Your task to perform on an android device: Open Youtube and go to the subscriptions tab Image 0: 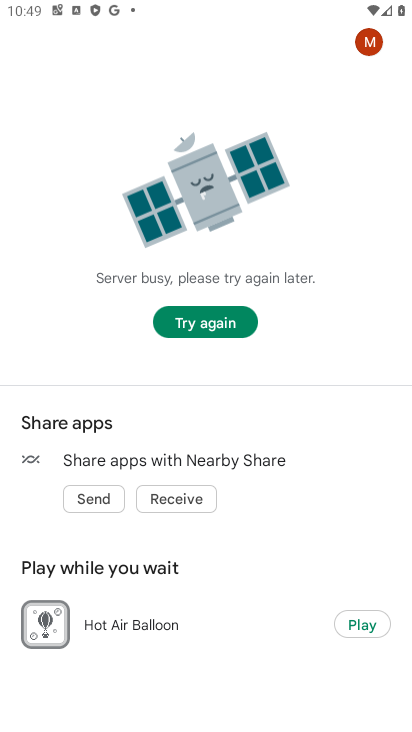
Step 0: press home button
Your task to perform on an android device: Open Youtube and go to the subscriptions tab Image 1: 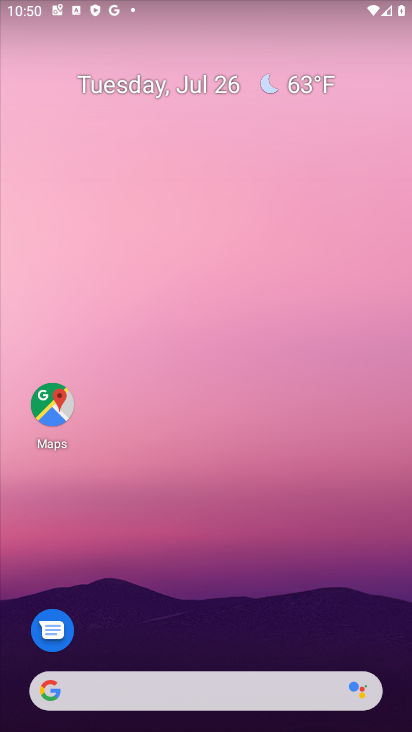
Step 1: drag from (254, 633) to (261, 126)
Your task to perform on an android device: Open Youtube and go to the subscriptions tab Image 2: 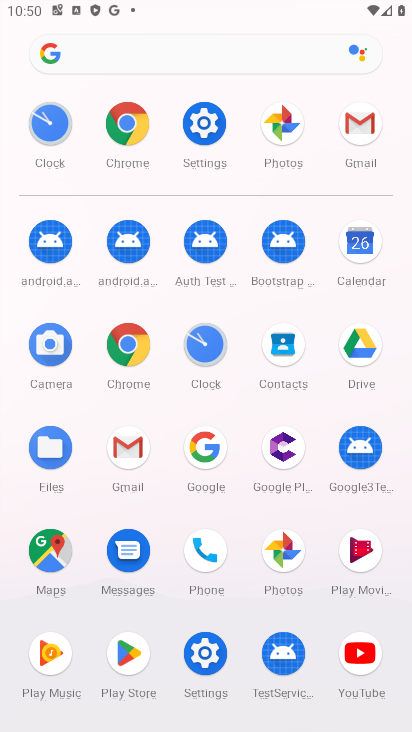
Step 2: click (350, 658)
Your task to perform on an android device: Open Youtube and go to the subscriptions tab Image 3: 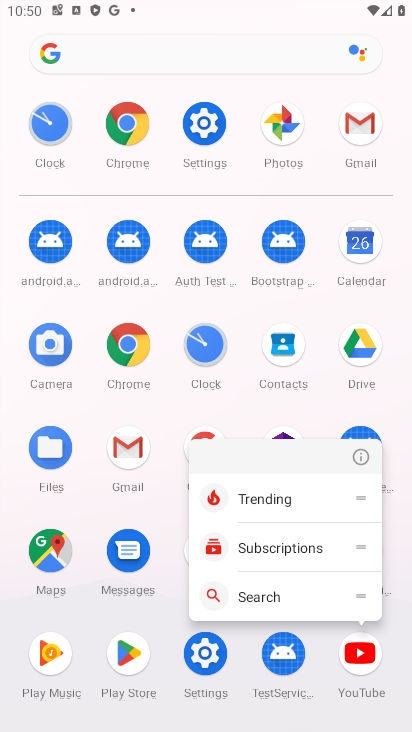
Step 3: click (353, 660)
Your task to perform on an android device: Open Youtube and go to the subscriptions tab Image 4: 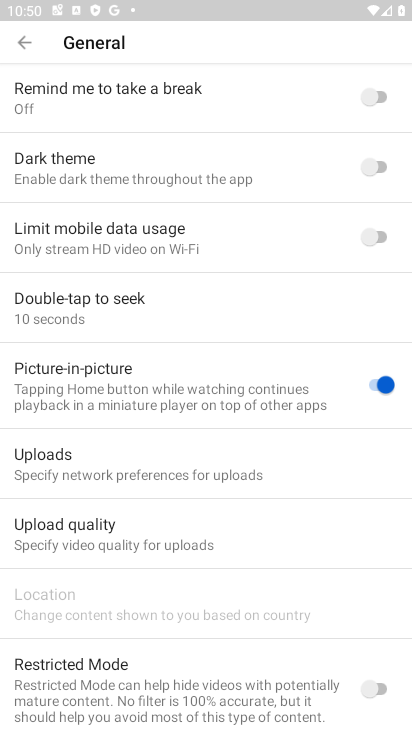
Step 4: click (30, 51)
Your task to perform on an android device: Open Youtube and go to the subscriptions tab Image 5: 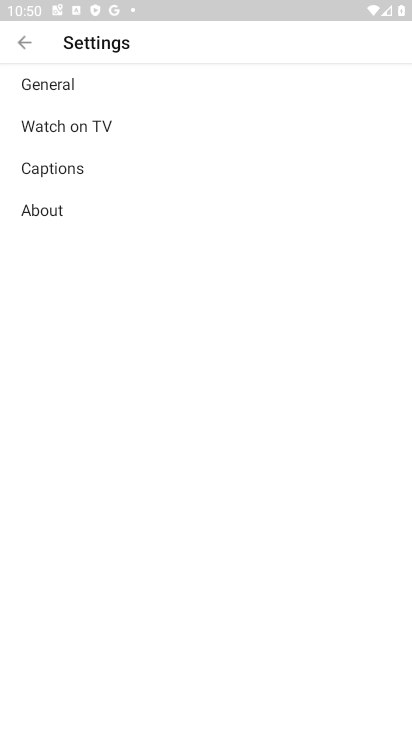
Step 5: click (27, 51)
Your task to perform on an android device: Open Youtube and go to the subscriptions tab Image 6: 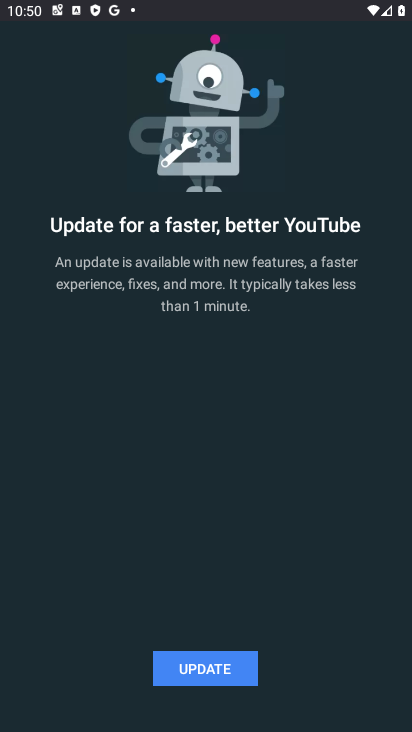
Step 6: press home button
Your task to perform on an android device: Open Youtube and go to the subscriptions tab Image 7: 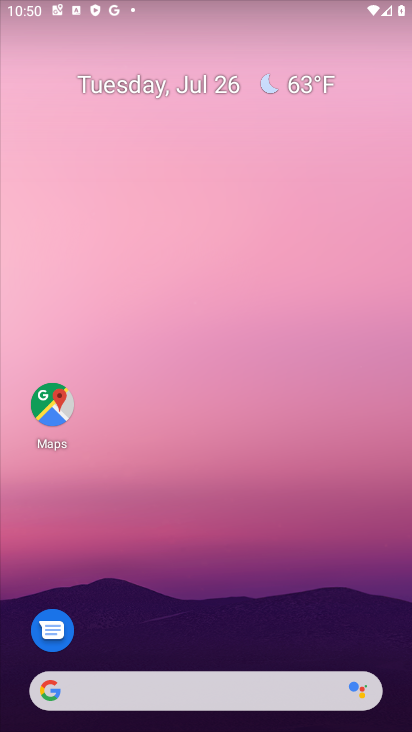
Step 7: drag from (290, 636) to (168, 74)
Your task to perform on an android device: Open Youtube and go to the subscriptions tab Image 8: 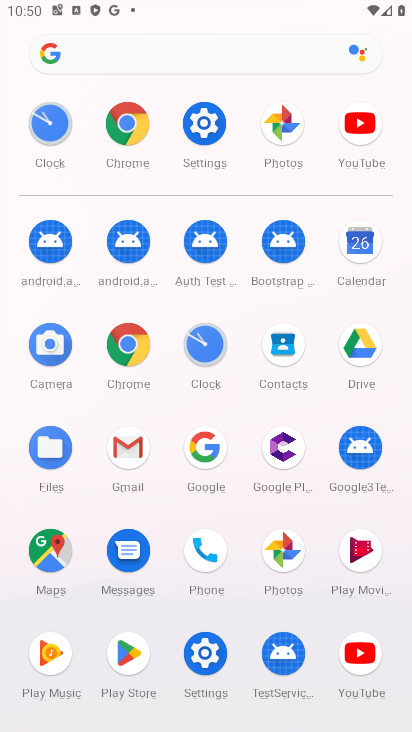
Step 8: click (372, 654)
Your task to perform on an android device: Open Youtube and go to the subscriptions tab Image 9: 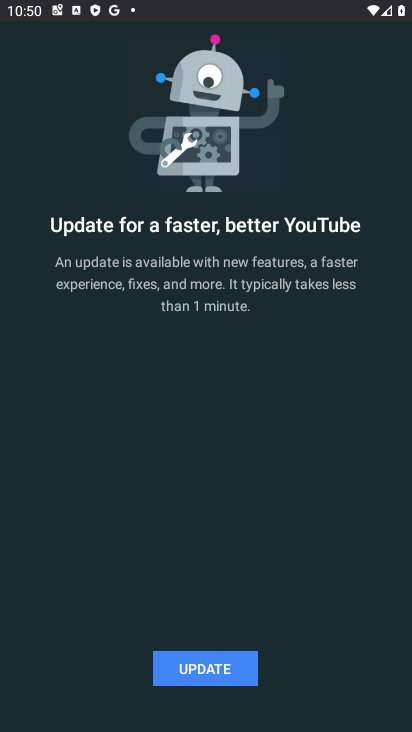
Step 9: click (238, 676)
Your task to perform on an android device: Open Youtube and go to the subscriptions tab Image 10: 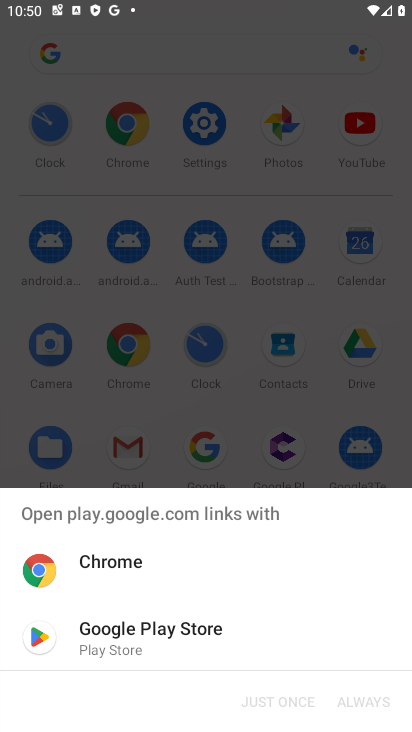
Step 10: click (139, 606)
Your task to perform on an android device: Open Youtube and go to the subscriptions tab Image 11: 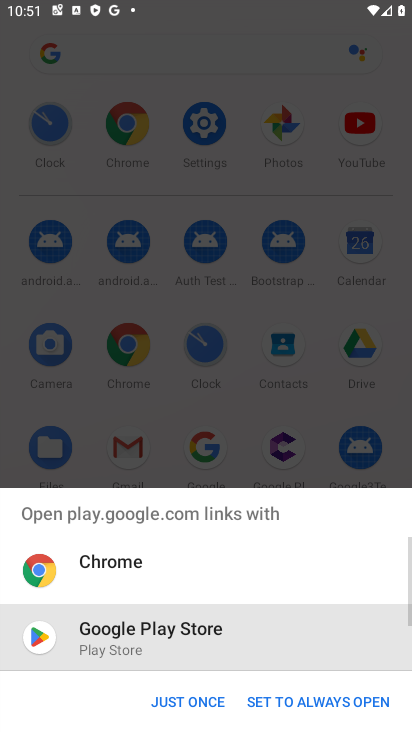
Step 11: click (199, 689)
Your task to perform on an android device: Open Youtube and go to the subscriptions tab Image 12: 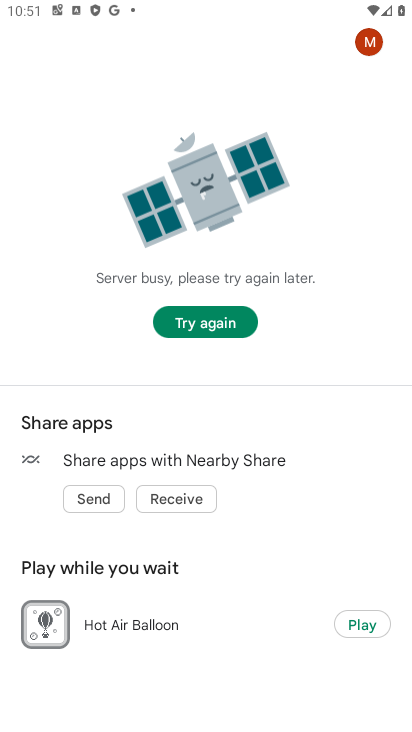
Step 12: click (204, 325)
Your task to perform on an android device: Open Youtube and go to the subscriptions tab Image 13: 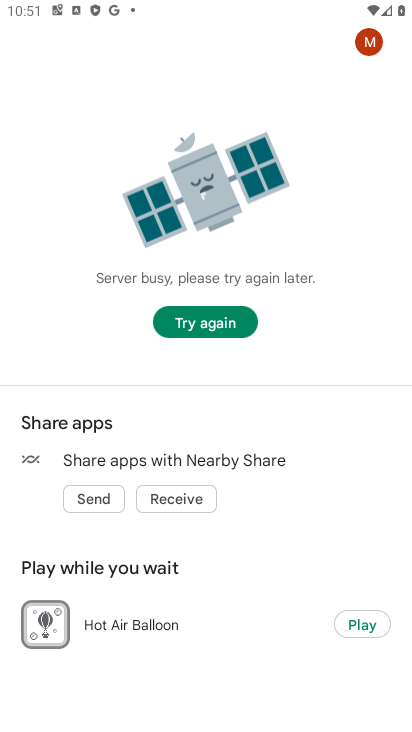
Step 13: task complete